Your task to perform on an android device: star an email in the gmail app Image 0: 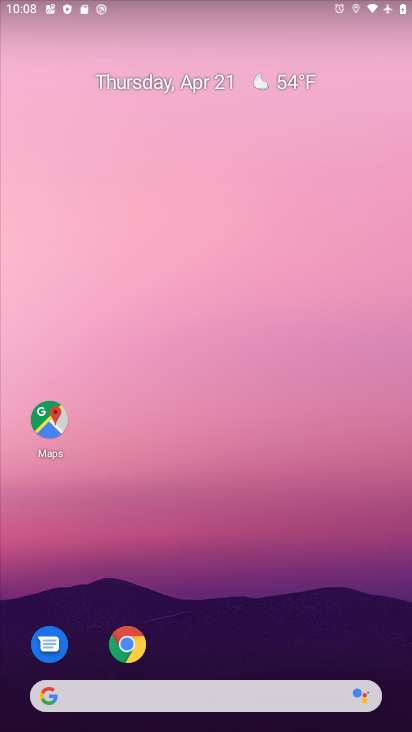
Step 0: drag from (197, 544) to (121, 61)
Your task to perform on an android device: star an email in the gmail app Image 1: 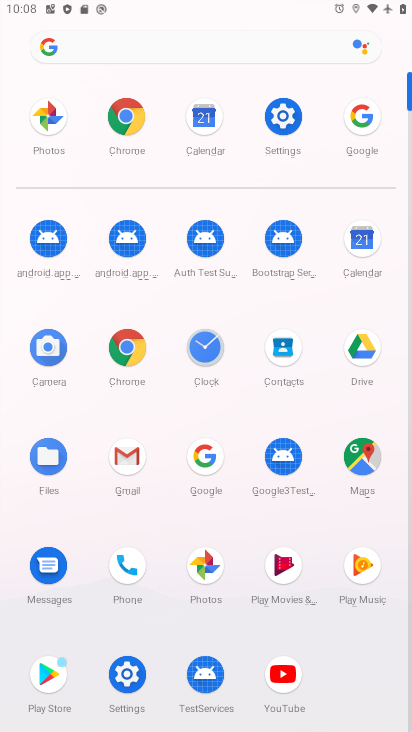
Step 1: click (123, 460)
Your task to perform on an android device: star an email in the gmail app Image 2: 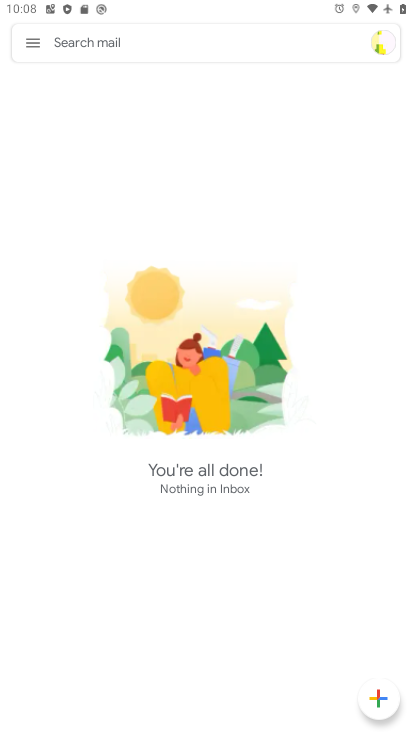
Step 2: click (27, 41)
Your task to perform on an android device: star an email in the gmail app Image 3: 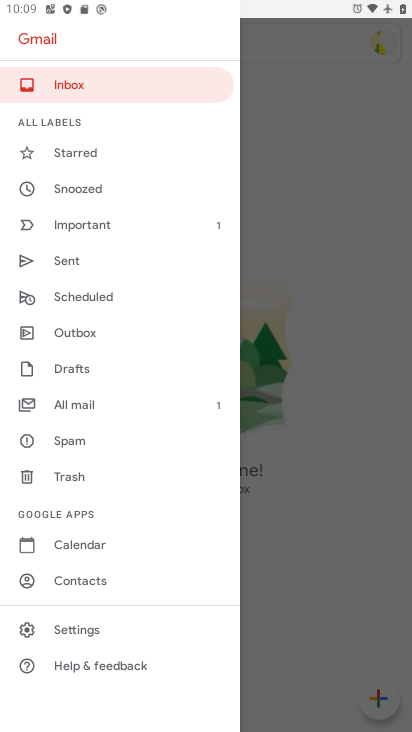
Step 3: click (147, 229)
Your task to perform on an android device: star an email in the gmail app Image 4: 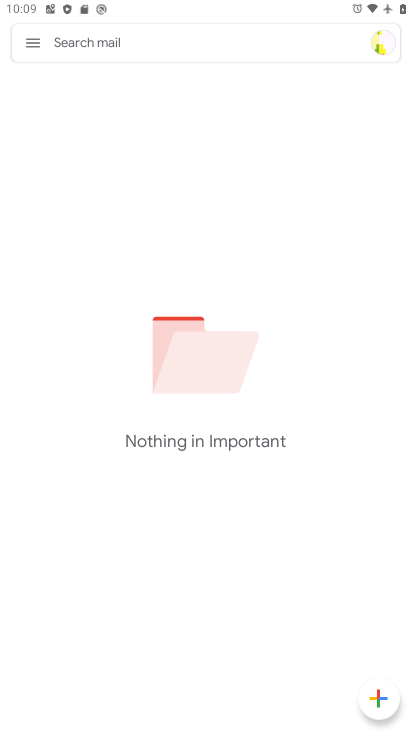
Step 4: click (27, 43)
Your task to perform on an android device: star an email in the gmail app Image 5: 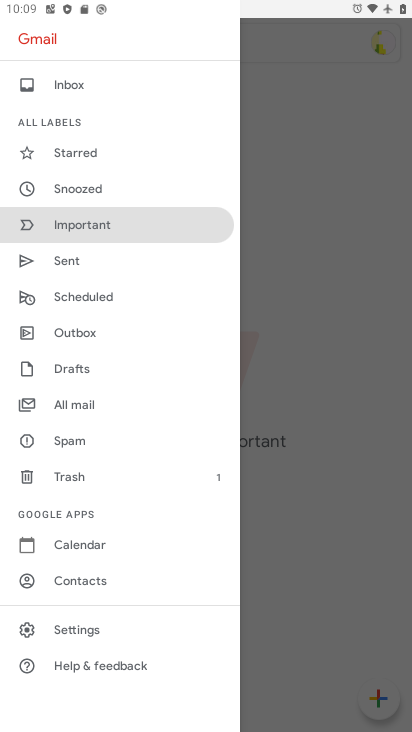
Step 5: click (81, 474)
Your task to perform on an android device: star an email in the gmail app Image 6: 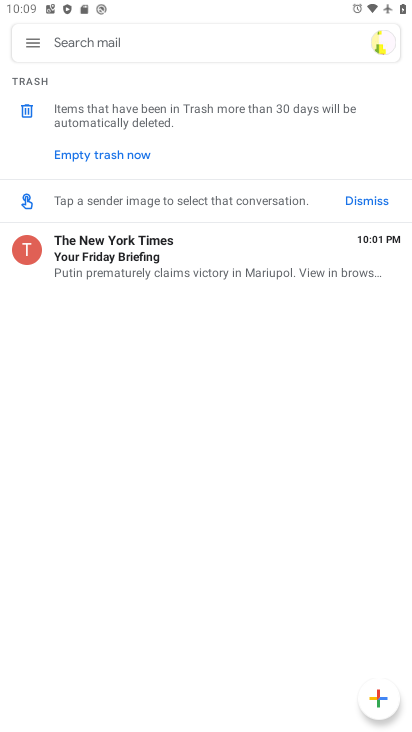
Step 6: click (289, 273)
Your task to perform on an android device: star an email in the gmail app Image 7: 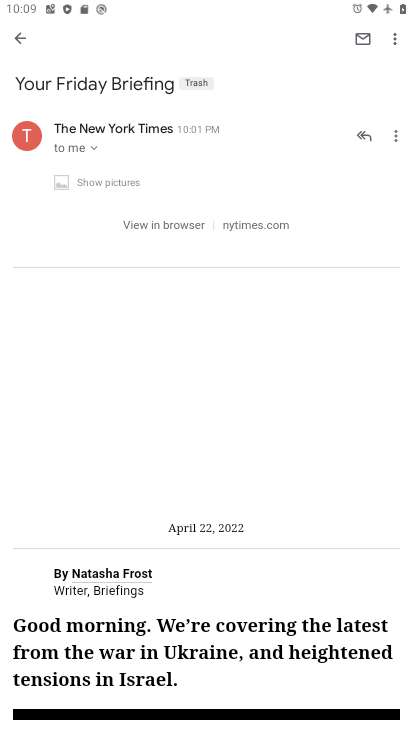
Step 7: click (395, 139)
Your task to perform on an android device: star an email in the gmail app Image 8: 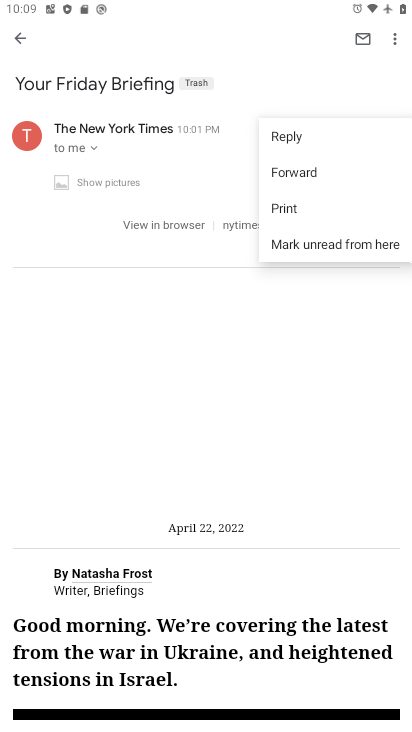
Step 8: drag from (241, 648) to (297, 171)
Your task to perform on an android device: star an email in the gmail app Image 9: 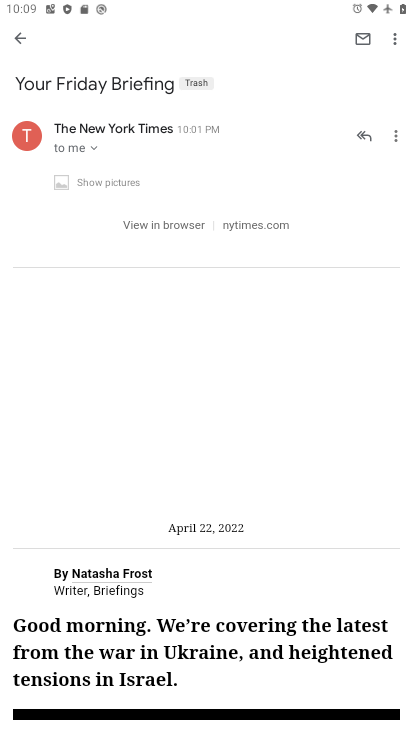
Step 9: click (398, 42)
Your task to perform on an android device: star an email in the gmail app Image 10: 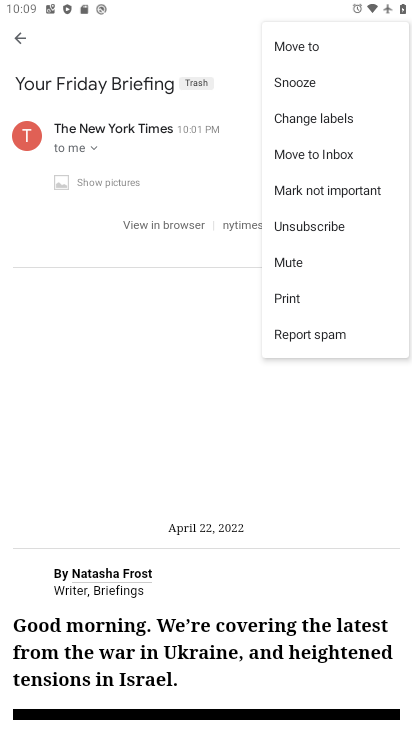
Step 10: click (295, 45)
Your task to perform on an android device: star an email in the gmail app Image 11: 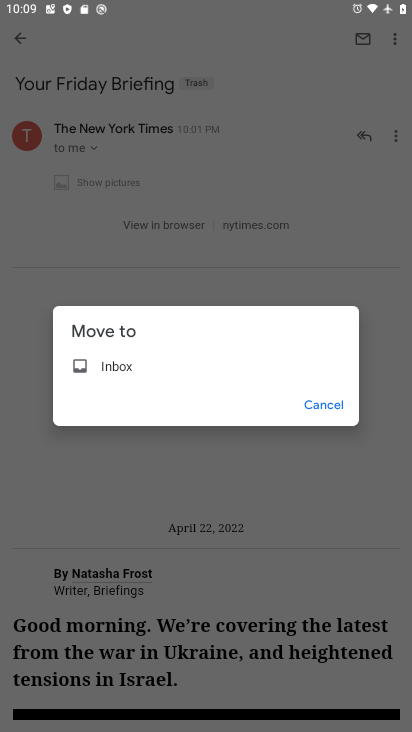
Step 11: click (102, 364)
Your task to perform on an android device: star an email in the gmail app Image 12: 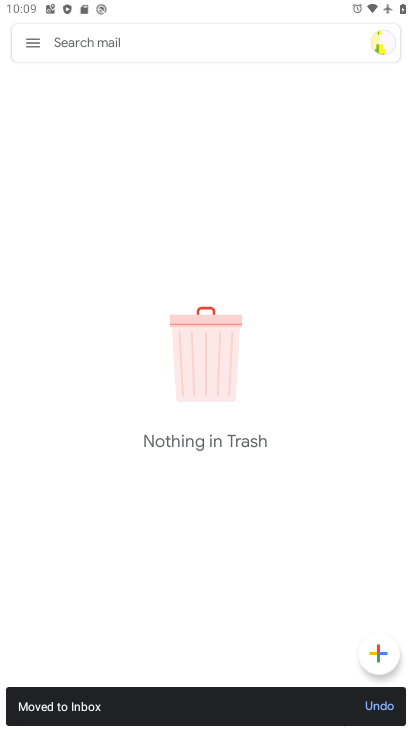
Step 12: click (37, 40)
Your task to perform on an android device: star an email in the gmail app Image 13: 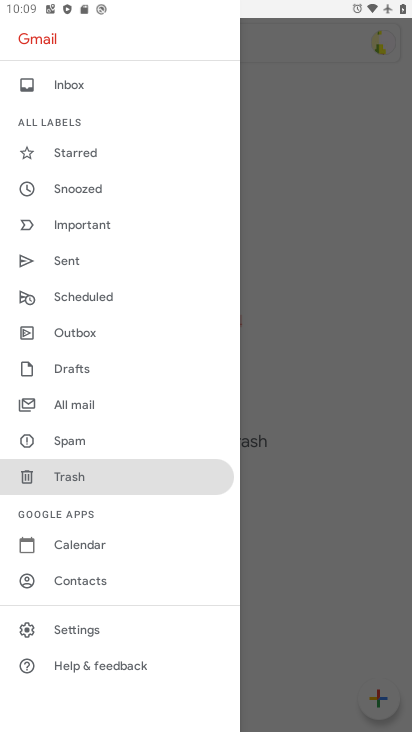
Step 13: click (65, 80)
Your task to perform on an android device: star an email in the gmail app Image 14: 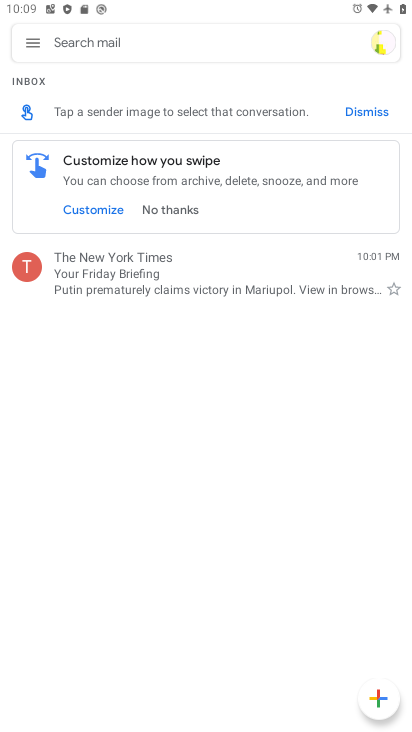
Step 14: click (397, 288)
Your task to perform on an android device: star an email in the gmail app Image 15: 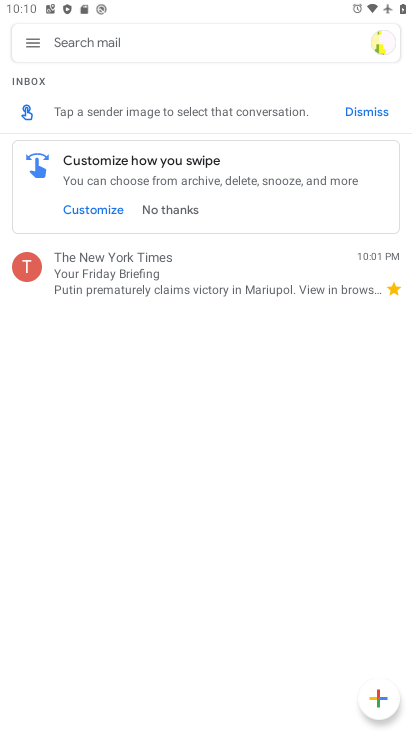
Step 15: task complete